Your task to perform on an android device: visit the assistant section in the google photos Image 0: 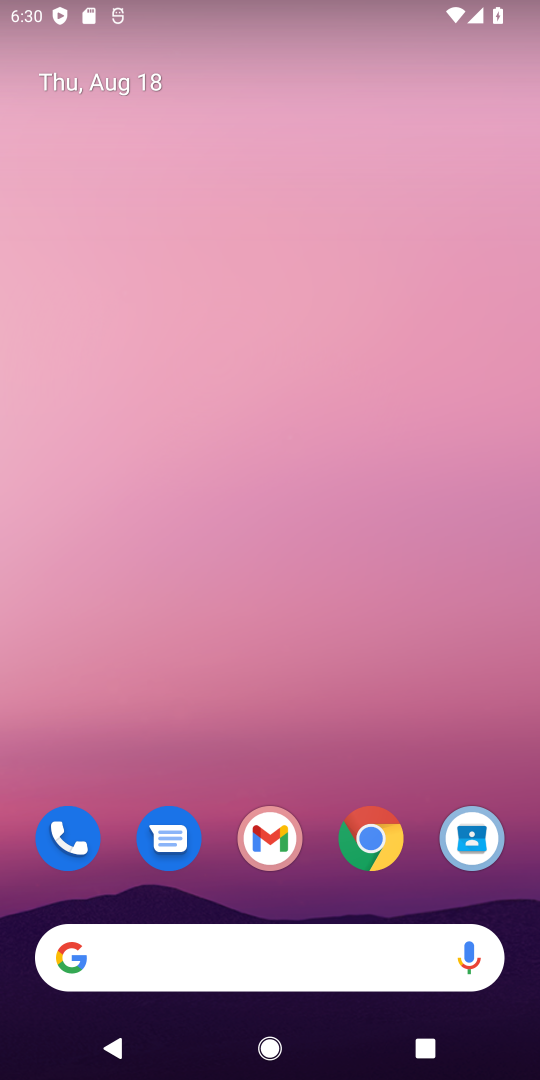
Step 0: press home button
Your task to perform on an android device: visit the assistant section in the google photos Image 1: 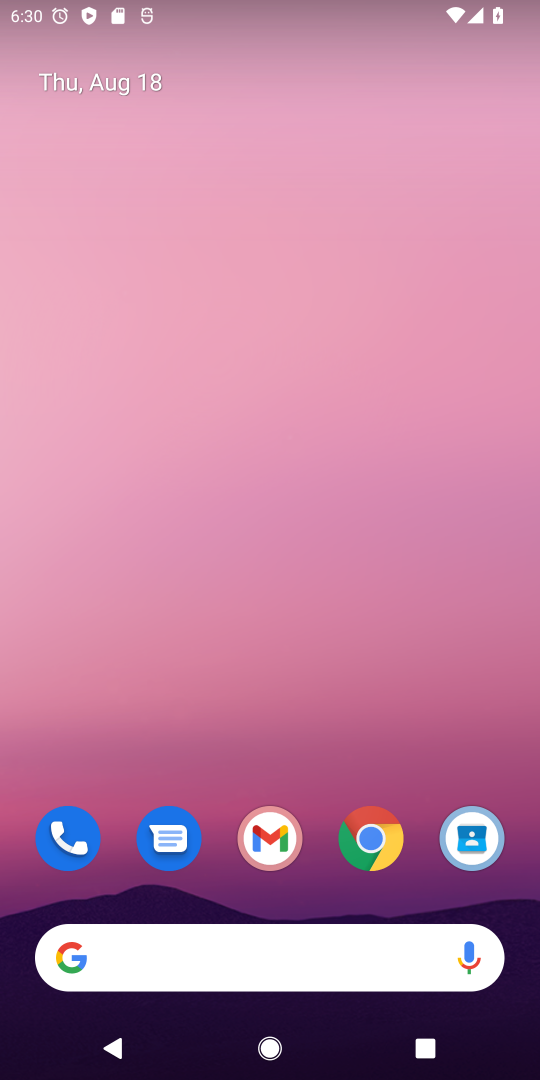
Step 1: drag from (320, 886) to (299, 182)
Your task to perform on an android device: visit the assistant section in the google photos Image 2: 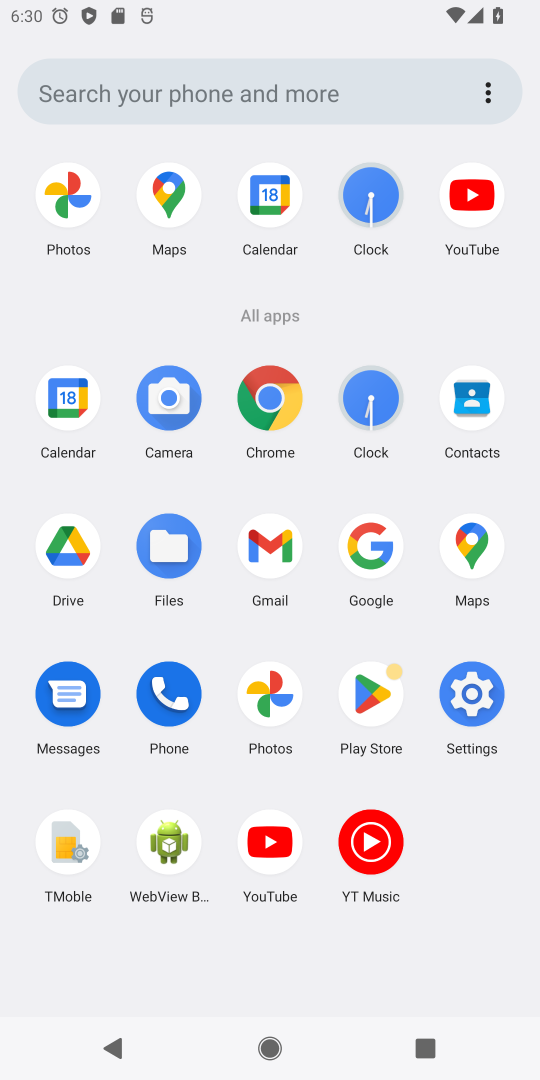
Step 2: click (71, 188)
Your task to perform on an android device: visit the assistant section in the google photos Image 3: 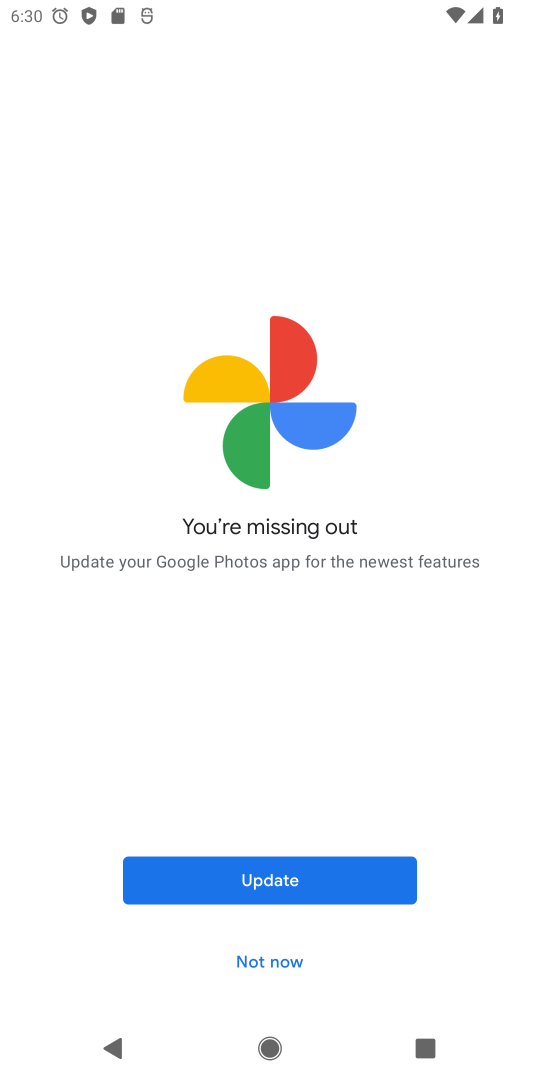
Step 3: click (258, 877)
Your task to perform on an android device: visit the assistant section in the google photos Image 4: 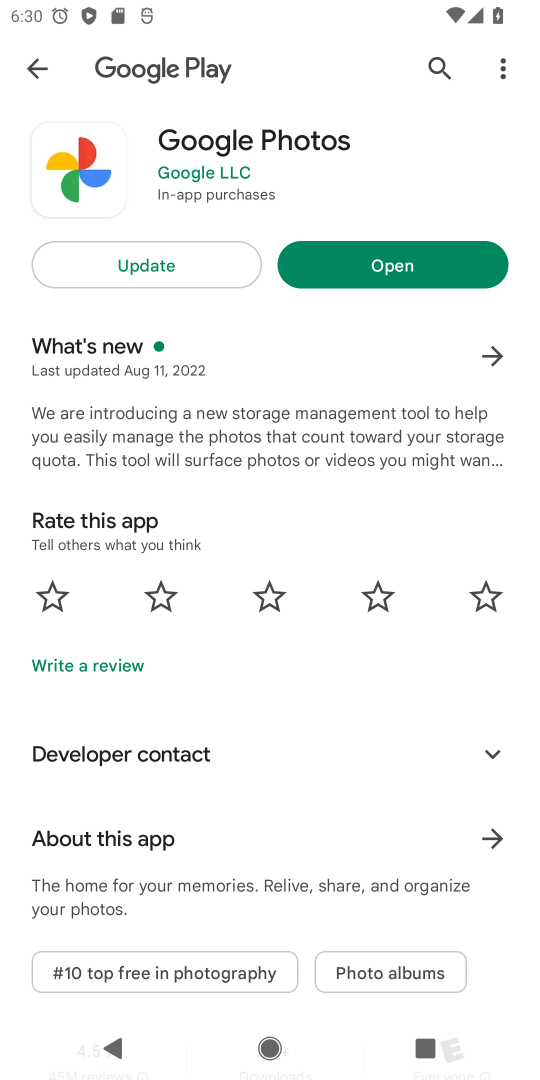
Step 4: click (167, 269)
Your task to perform on an android device: visit the assistant section in the google photos Image 5: 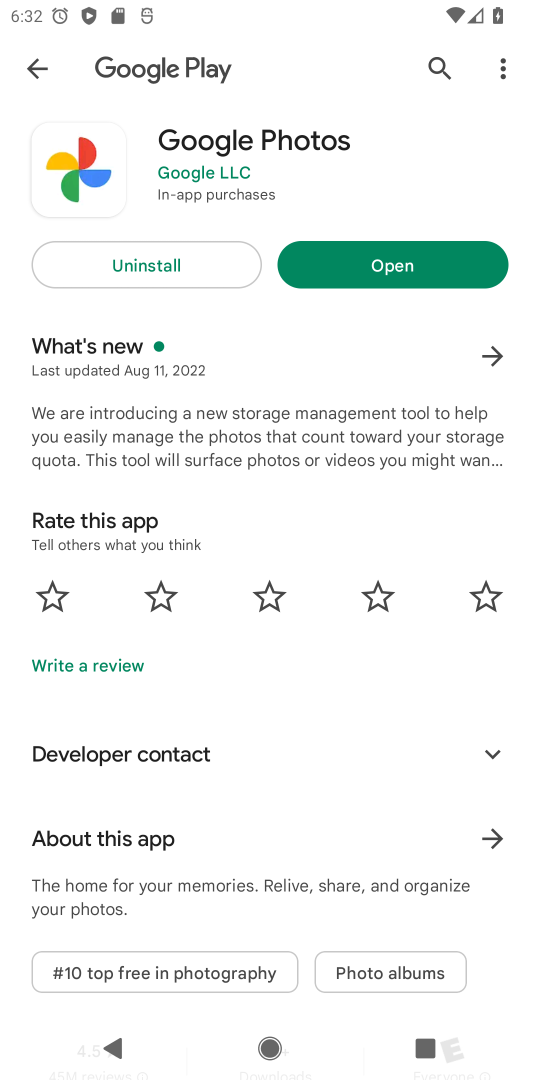
Step 5: click (341, 282)
Your task to perform on an android device: visit the assistant section in the google photos Image 6: 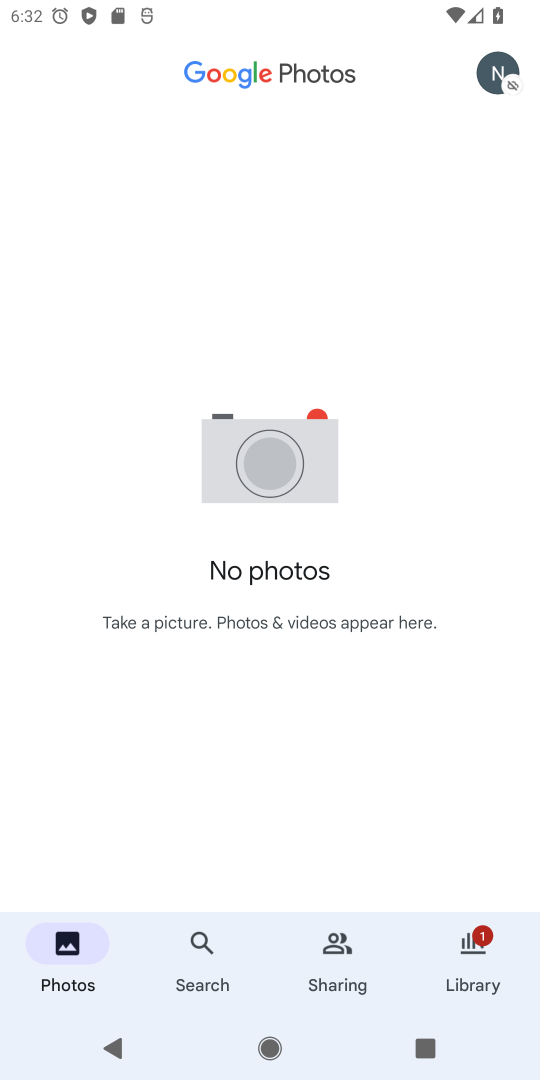
Step 6: task complete